Your task to perform on an android device: Search for seafood restaurants on Google Maps Image 0: 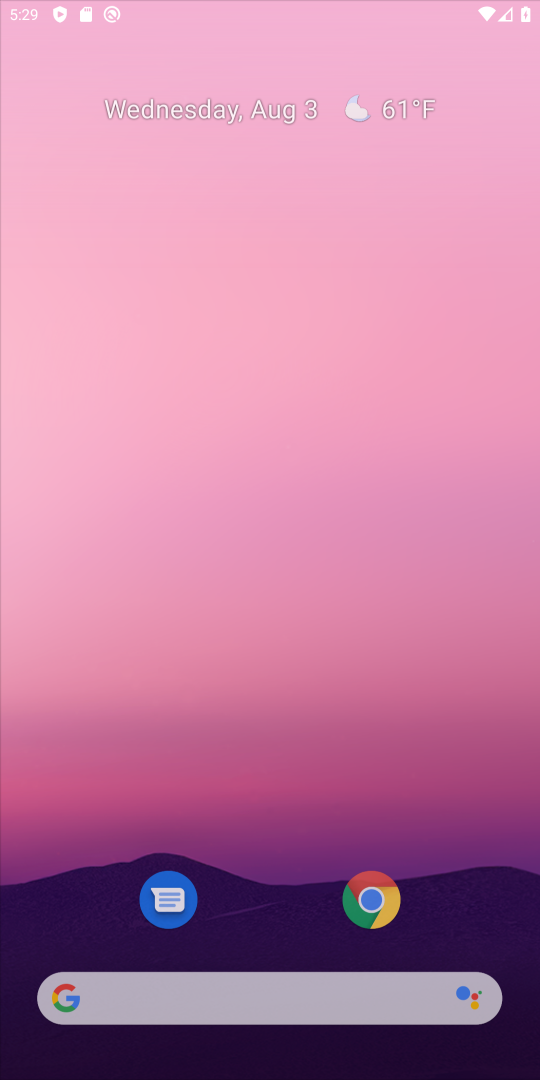
Step 0: press home button
Your task to perform on an android device: Search for seafood restaurants on Google Maps Image 1: 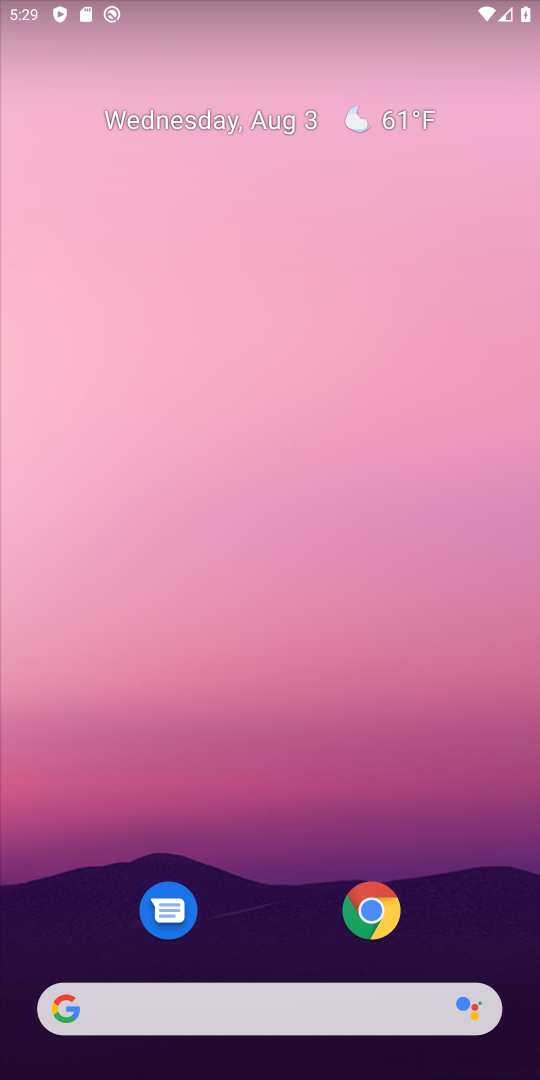
Step 1: drag from (290, 924) to (378, 122)
Your task to perform on an android device: Search for seafood restaurants on Google Maps Image 2: 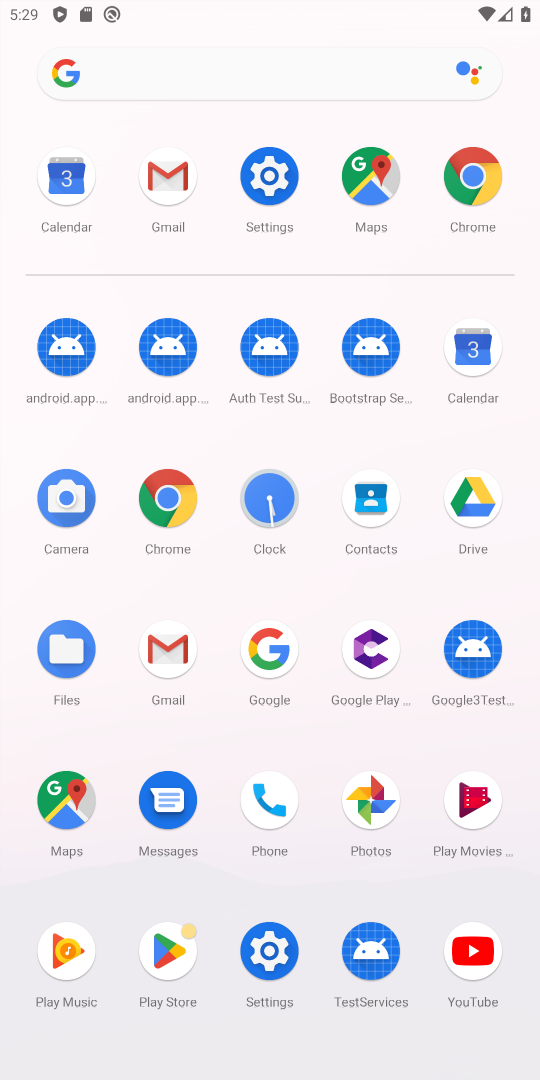
Step 2: click (62, 793)
Your task to perform on an android device: Search for seafood restaurants on Google Maps Image 3: 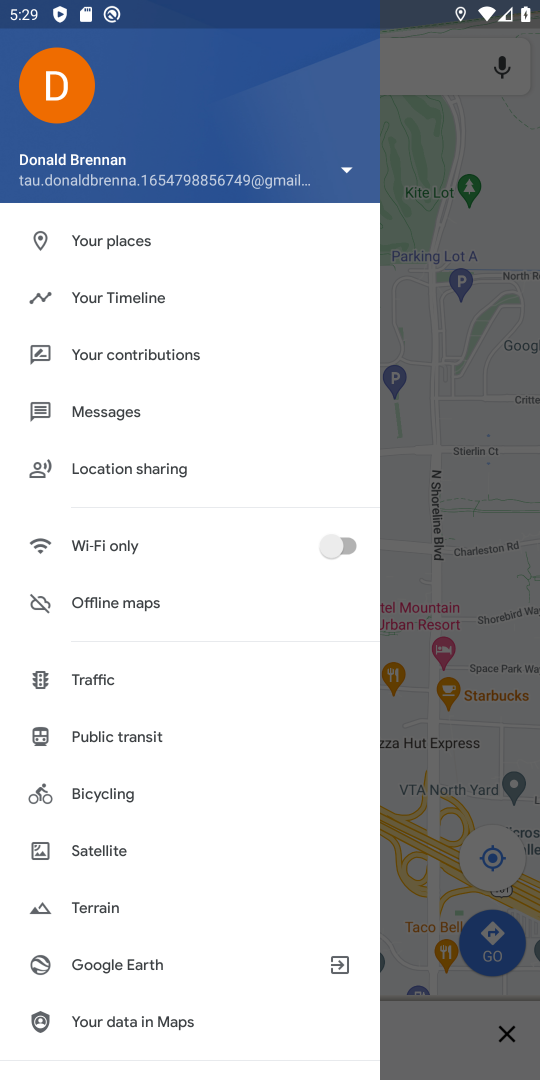
Step 3: click (414, 84)
Your task to perform on an android device: Search for seafood restaurants on Google Maps Image 4: 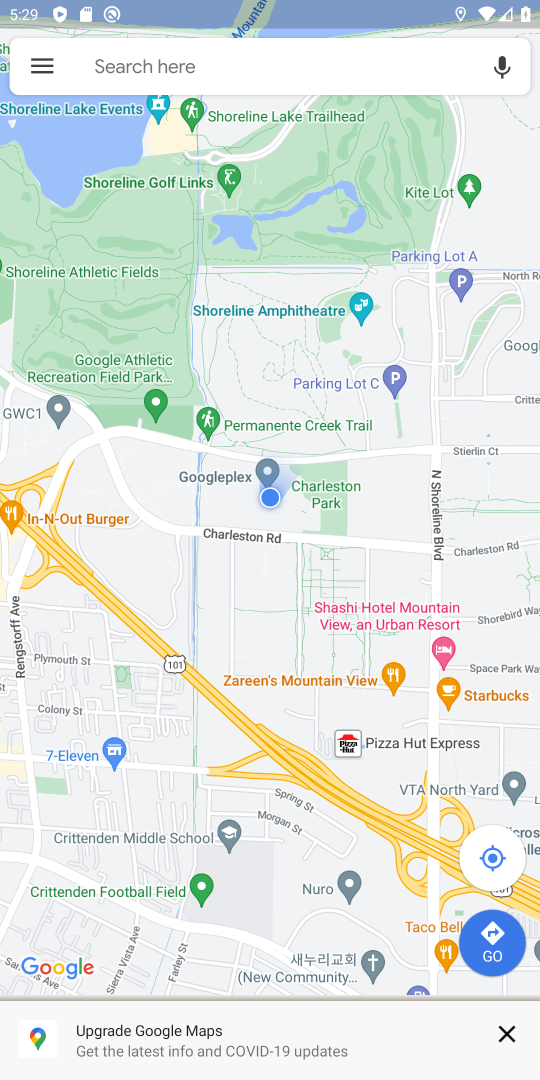
Step 4: click (294, 65)
Your task to perform on an android device: Search for seafood restaurants on Google Maps Image 5: 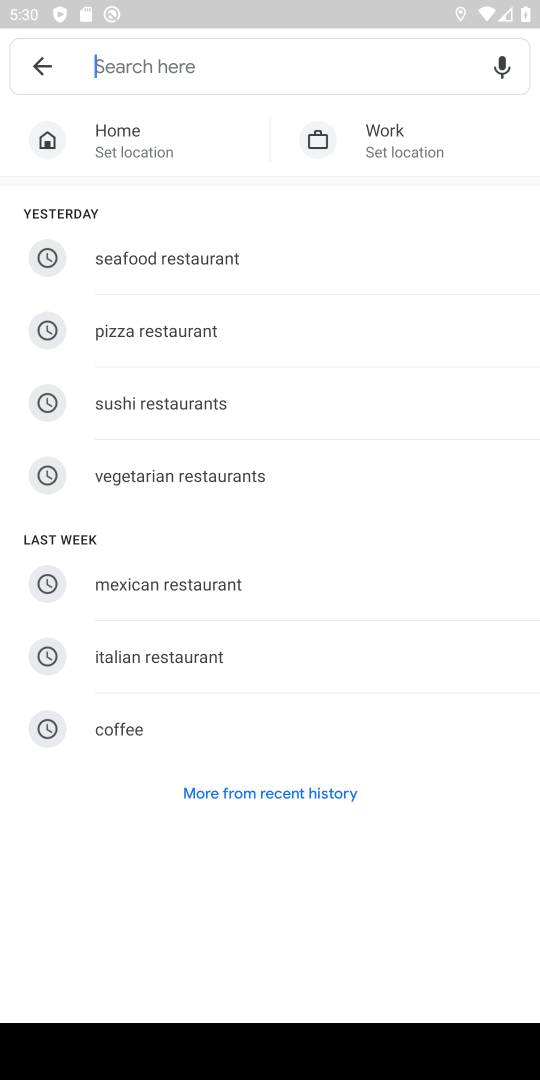
Step 5: type " seafood restaurants"
Your task to perform on an android device: Search for seafood restaurants on Google Maps Image 6: 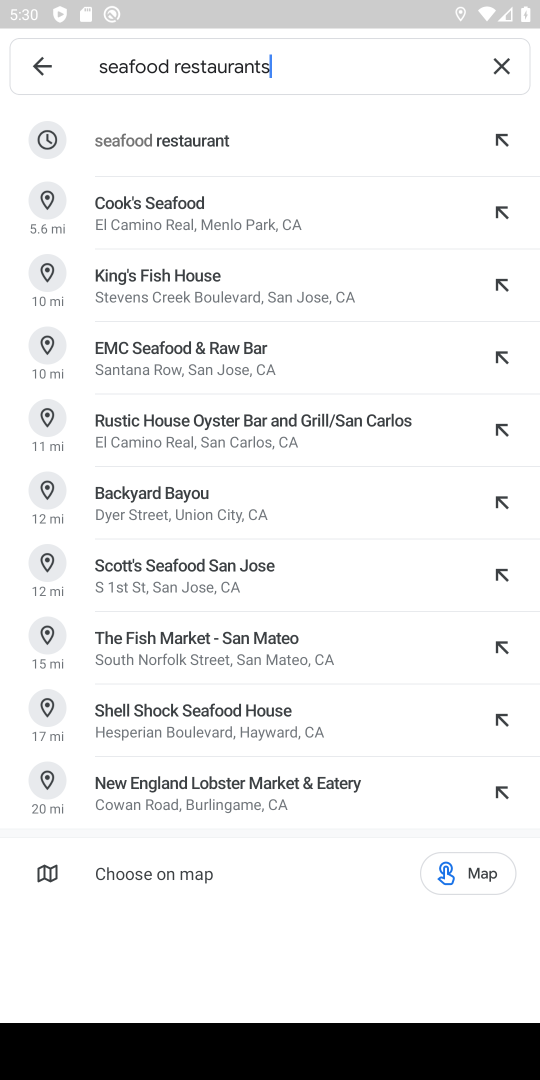
Step 6: click (202, 142)
Your task to perform on an android device: Search for seafood restaurants on Google Maps Image 7: 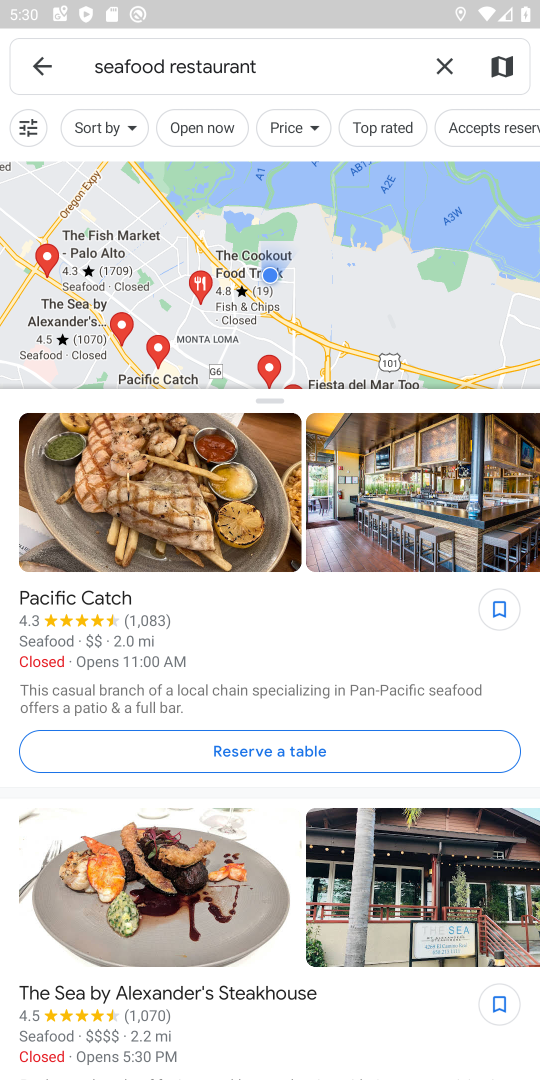
Step 7: task complete